Your task to perform on an android device: Check the weather Image 0: 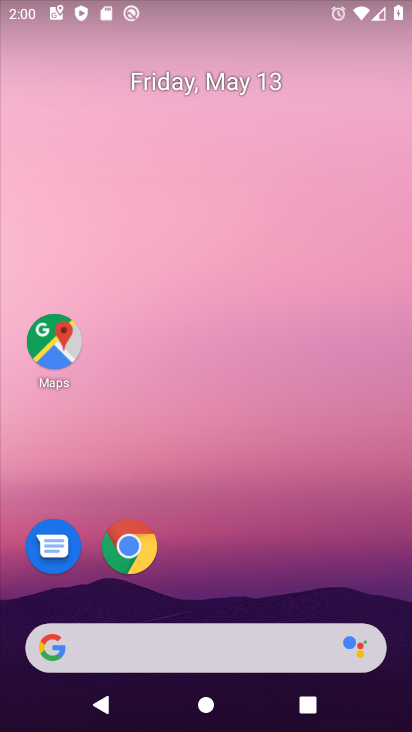
Step 0: drag from (319, 569) to (366, 60)
Your task to perform on an android device: Check the weather Image 1: 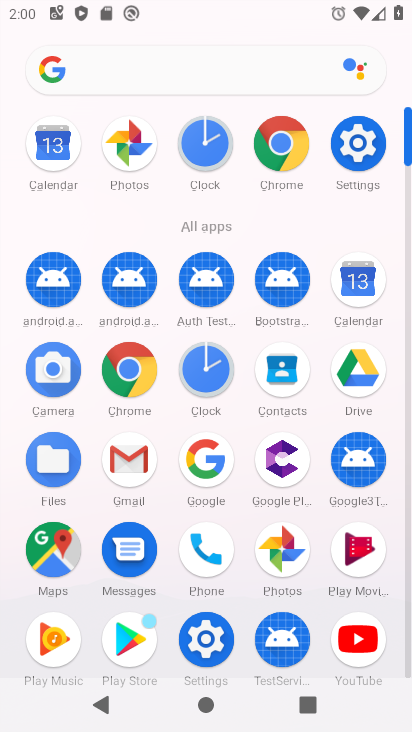
Step 1: click (272, 133)
Your task to perform on an android device: Check the weather Image 2: 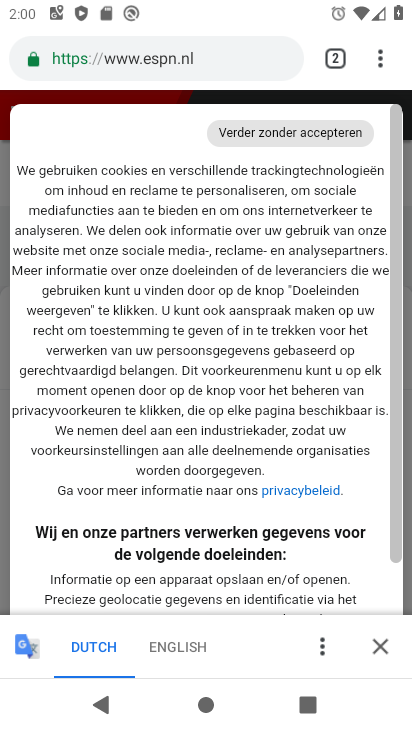
Step 2: click (235, 57)
Your task to perform on an android device: Check the weather Image 3: 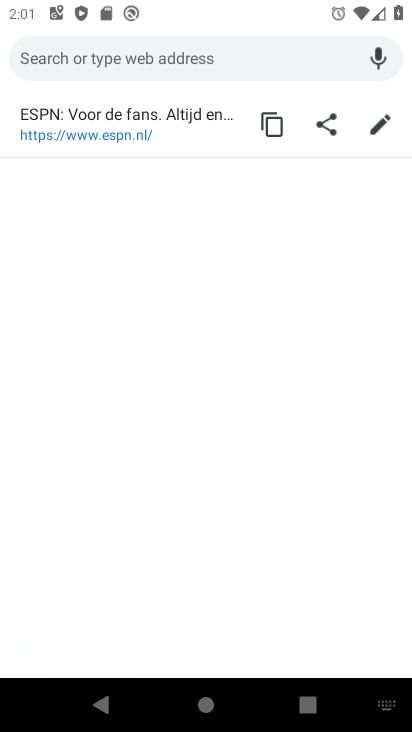
Step 3: type "weather"
Your task to perform on an android device: Check the weather Image 4: 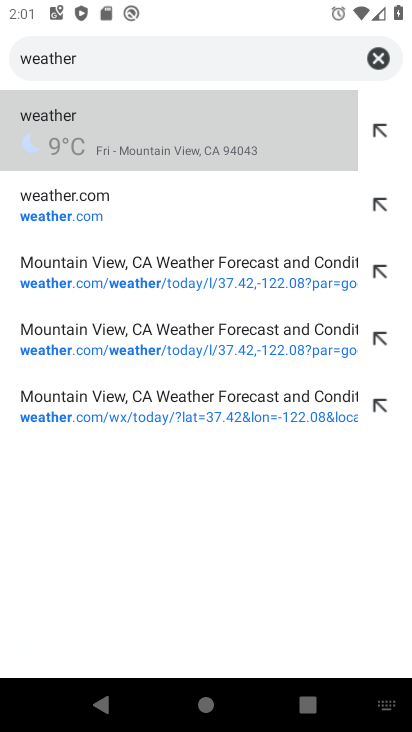
Step 4: click (57, 124)
Your task to perform on an android device: Check the weather Image 5: 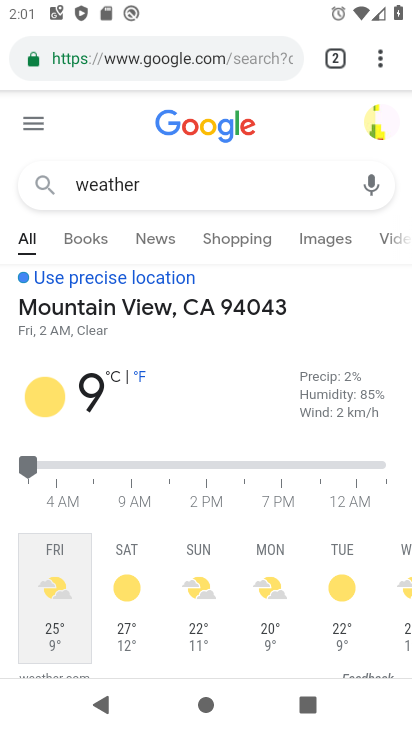
Step 5: task complete